Your task to perform on an android device: Go to Amazon Image 0: 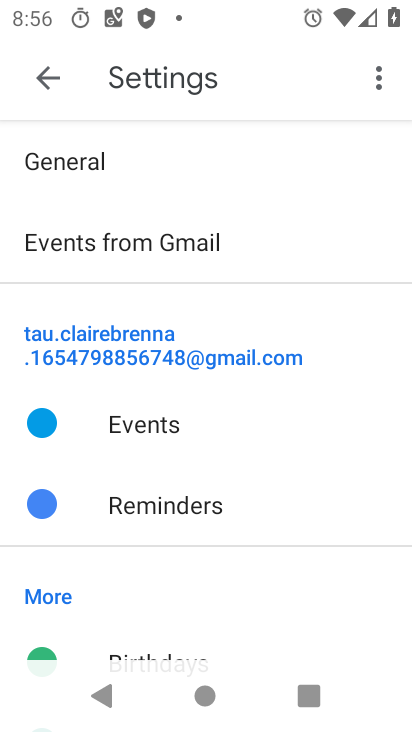
Step 0: press home button
Your task to perform on an android device: Go to Amazon Image 1: 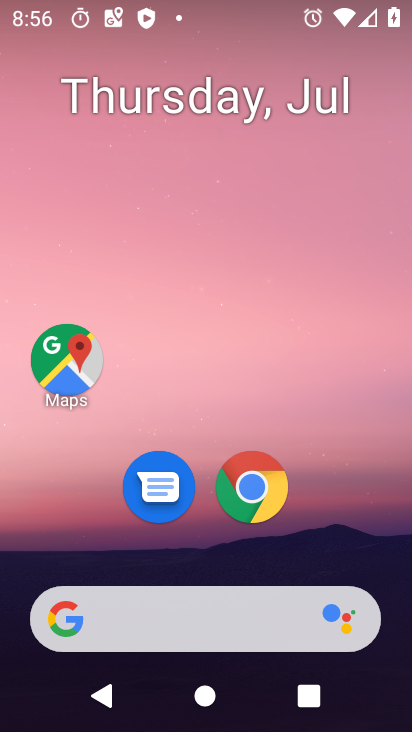
Step 1: drag from (295, 610) to (289, 98)
Your task to perform on an android device: Go to Amazon Image 2: 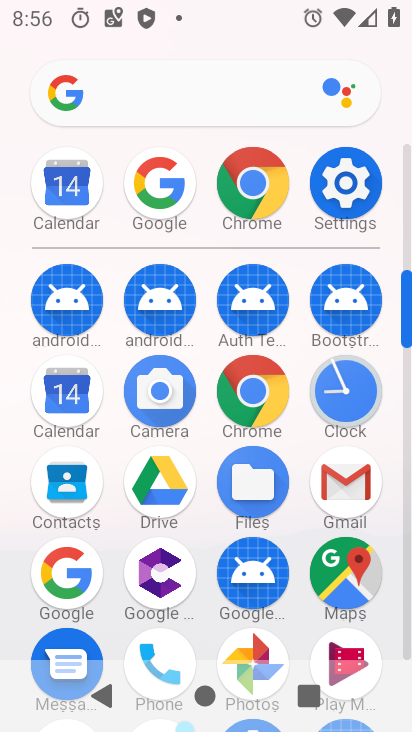
Step 2: click (259, 189)
Your task to perform on an android device: Go to Amazon Image 3: 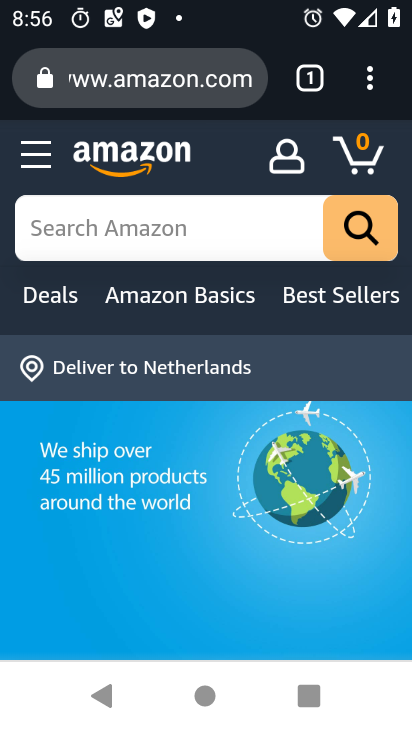
Step 3: task complete